Your task to perform on an android device: Open ESPN.com Image 0: 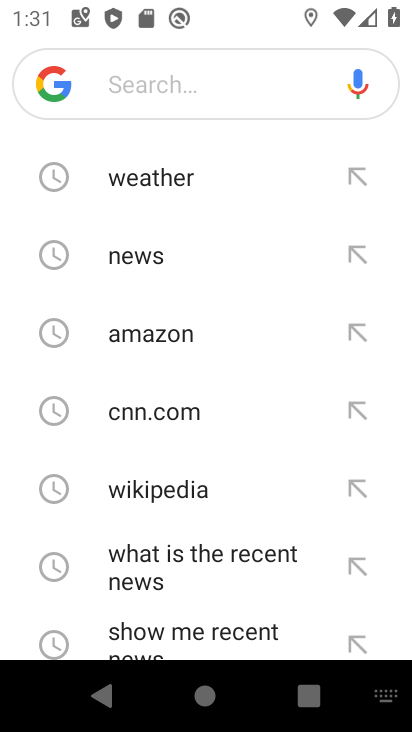
Step 0: press back button
Your task to perform on an android device: Open ESPN.com Image 1: 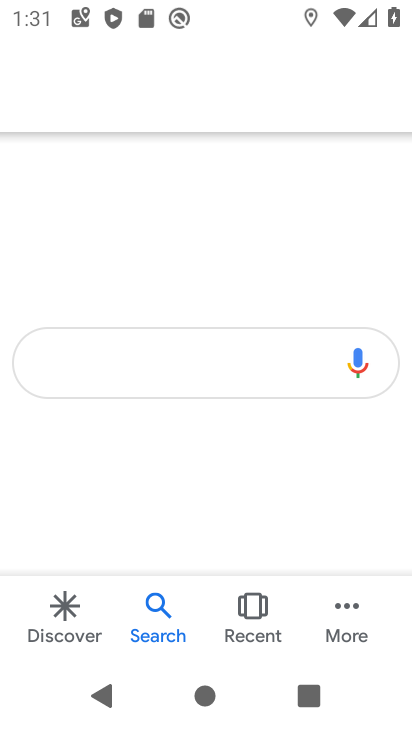
Step 1: press back button
Your task to perform on an android device: Open ESPN.com Image 2: 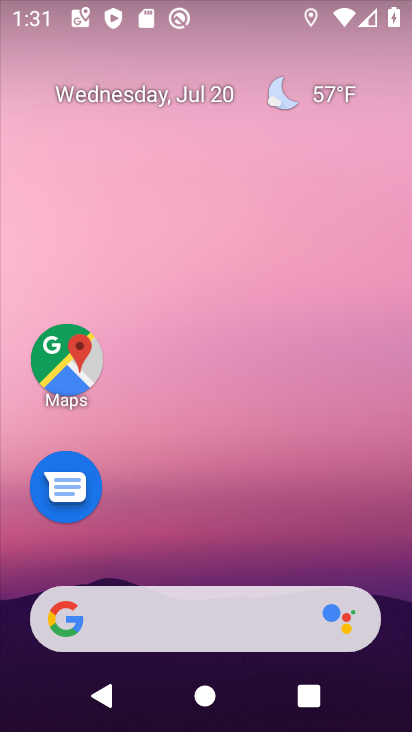
Step 2: drag from (203, 473) to (309, 23)
Your task to perform on an android device: Open ESPN.com Image 3: 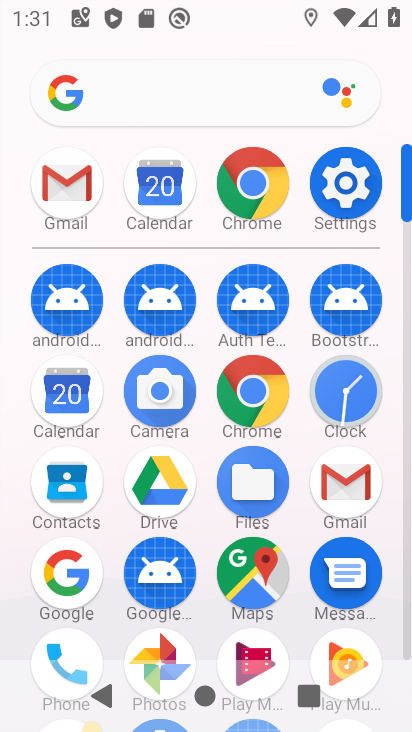
Step 3: click (276, 187)
Your task to perform on an android device: Open ESPN.com Image 4: 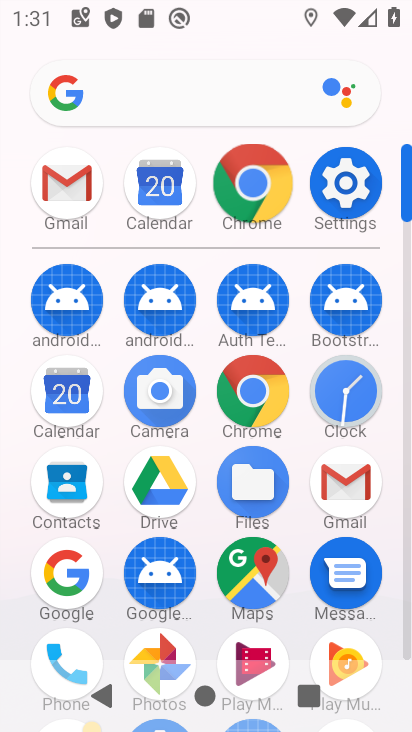
Step 4: click (252, 179)
Your task to perform on an android device: Open ESPN.com Image 5: 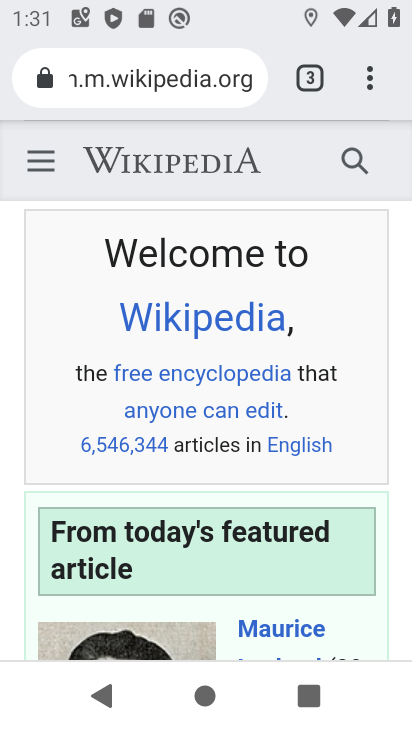
Step 5: click (313, 67)
Your task to perform on an android device: Open ESPN.com Image 6: 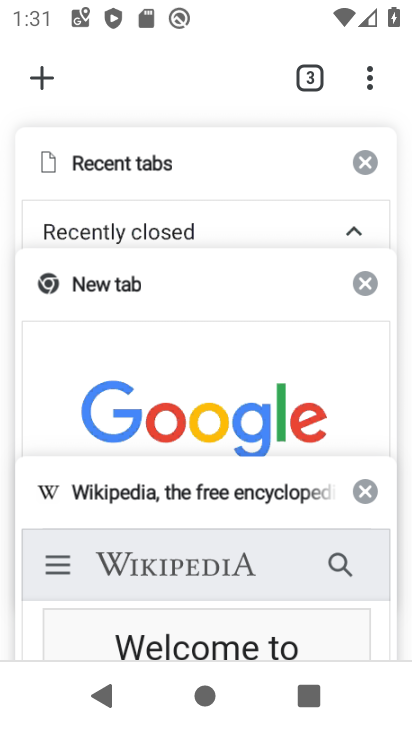
Step 6: click (53, 67)
Your task to perform on an android device: Open ESPN.com Image 7: 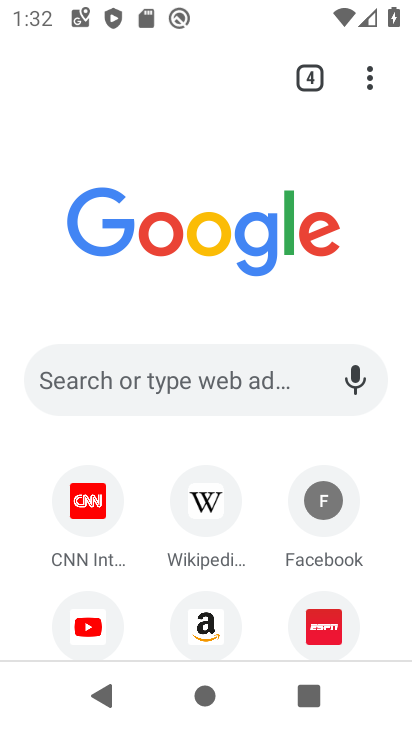
Step 7: click (303, 614)
Your task to perform on an android device: Open ESPN.com Image 8: 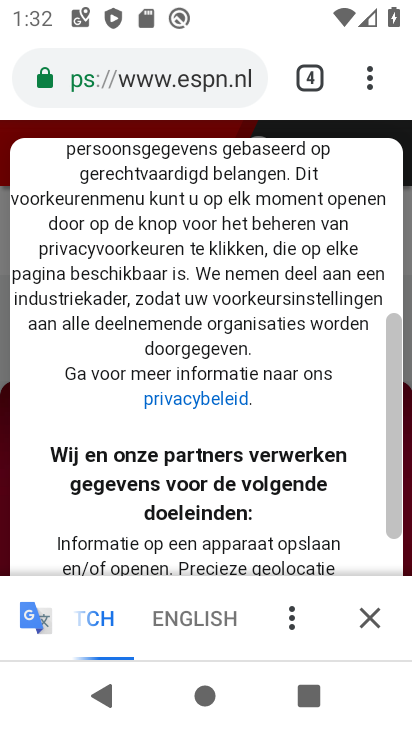
Step 8: task complete